Your task to perform on an android device: Go to Maps Image 0: 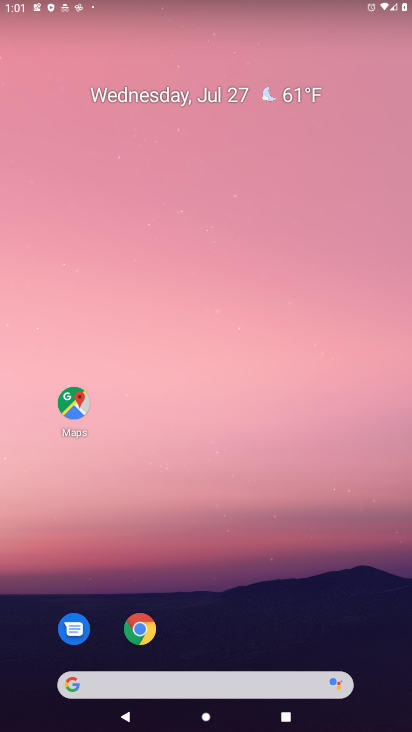
Step 0: click (50, 427)
Your task to perform on an android device: Go to Maps Image 1: 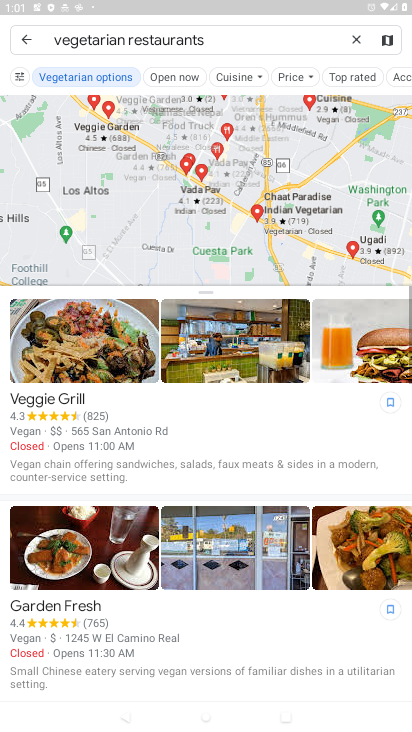
Step 1: task complete